Your task to perform on an android device: turn off location Image 0: 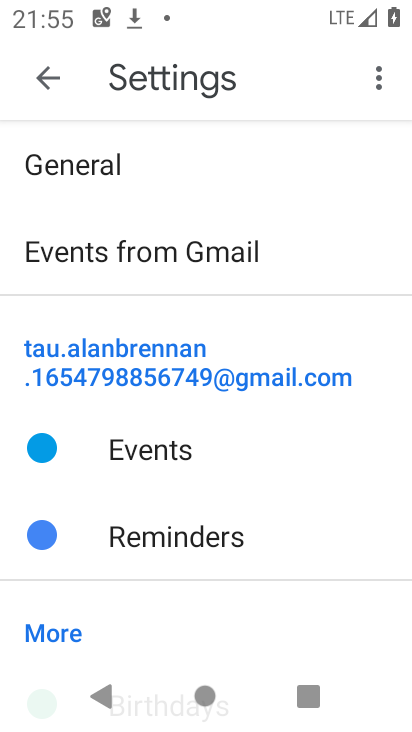
Step 0: press back button
Your task to perform on an android device: turn off location Image 1: 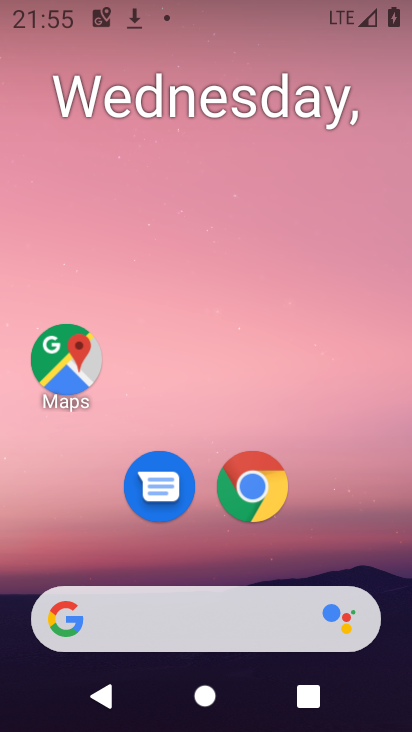
Step 1: drag from (144, 558) to (237, 28)
Your task to perform on an android device: turn off location Image 2: 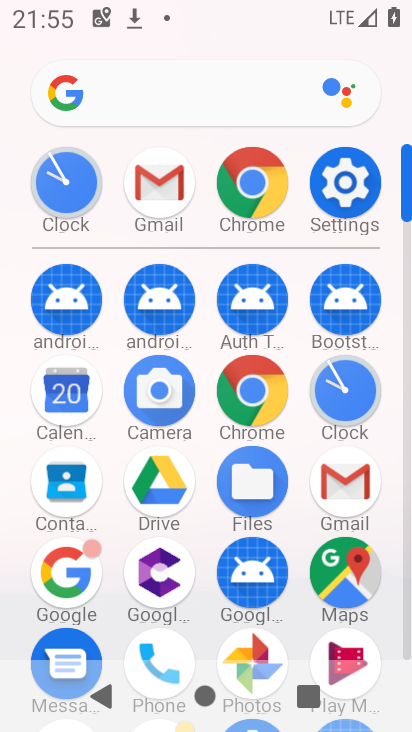
Step 2: click (348, 176)
Your task to perform on an android device: turn off location Image 3: 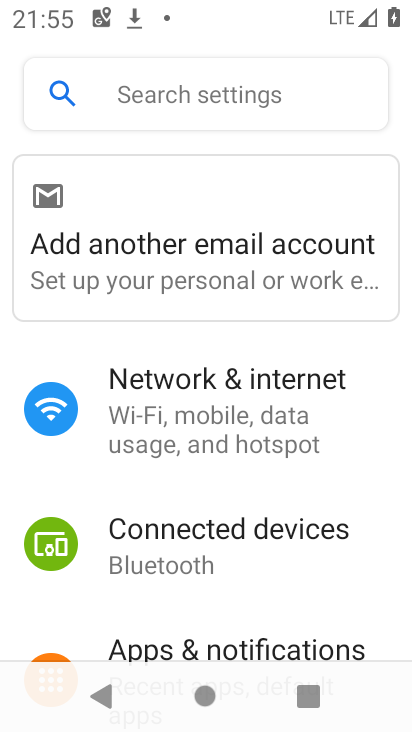
Step 3: drag from (182, 600) to (311, 128)
Your task to perform on an android device: turn off location Image 4: 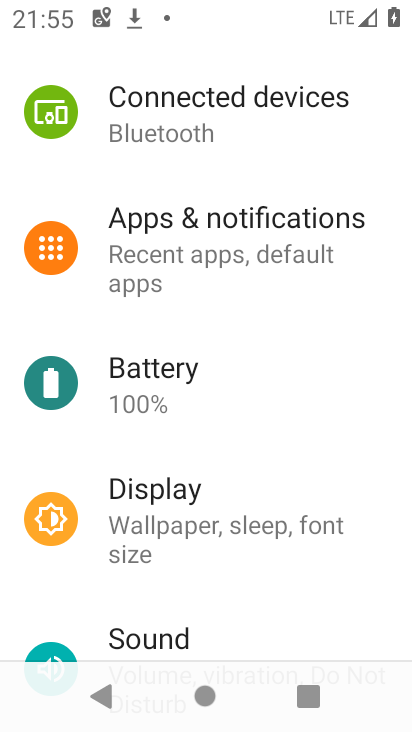
Step 4: drag from (163, 590) to (275, 141)
Your task to perform on an android device: turn off location Image 5: 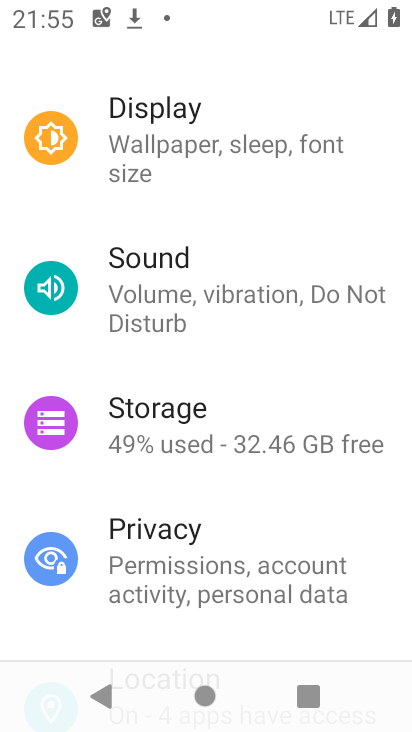
Step 5: drag from (163, 600) to (269, 114)
Your task to perform on an android device: turn off location Image 6: 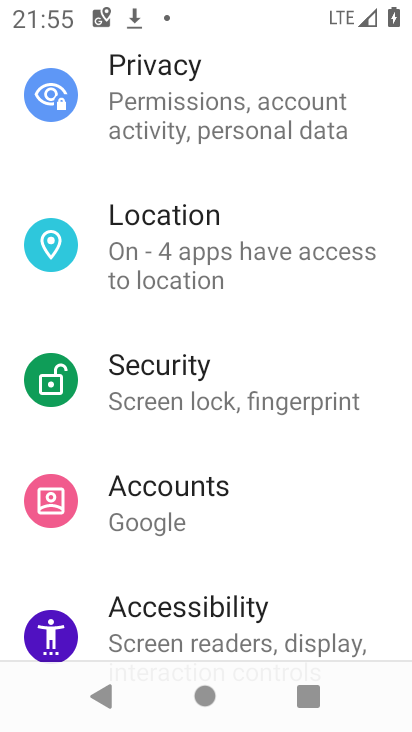
Step 6: click (177, 242)
Your task to perform on an android device: turn off location Image 7: 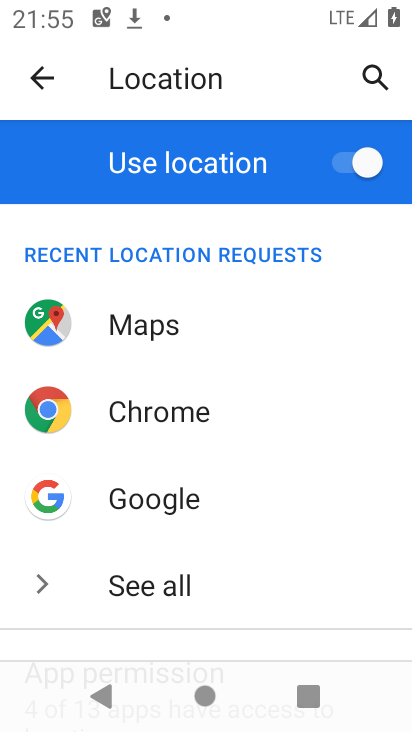
Step 7: click (360, 157)
Your task to perform on an android device: turn off location Image 8: 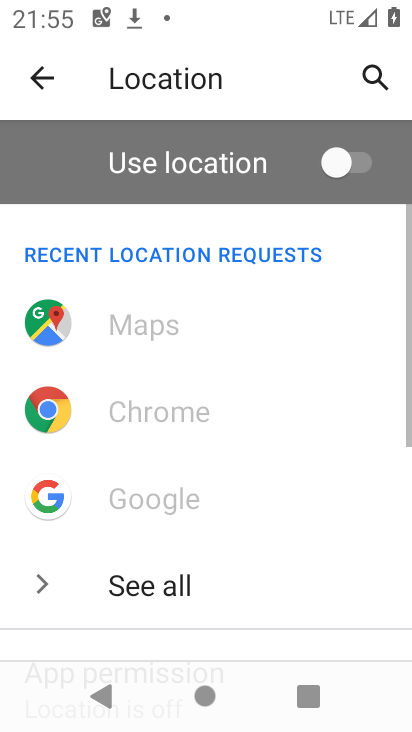
Step 8: task complete